Your task to perform on an android device: turn off data saver in the chrome app Image 0: 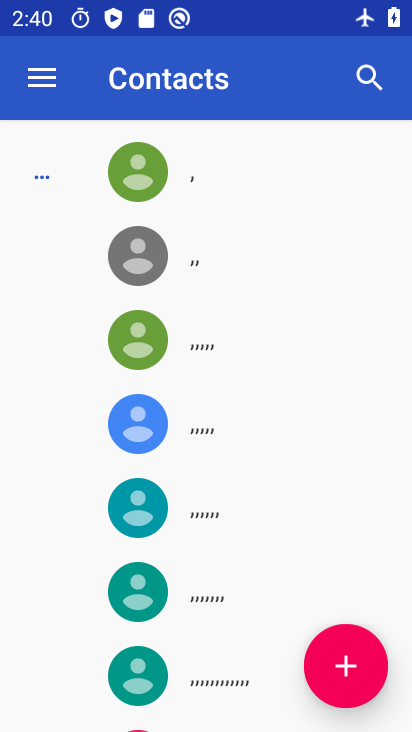
Step 0: press home button
Your task to perform on an android device: turn off data saver in the chrome app Image 1: 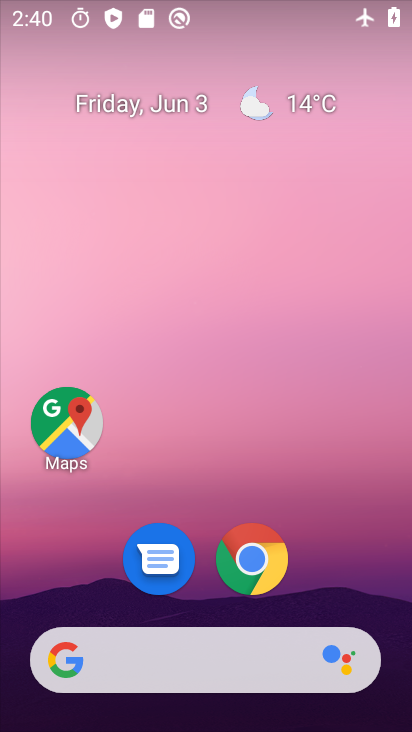
Step 1: drag from (183, 620) to (207, 86)
Your task to perform on an android device: turn off data saver in the chrome app Image 2: 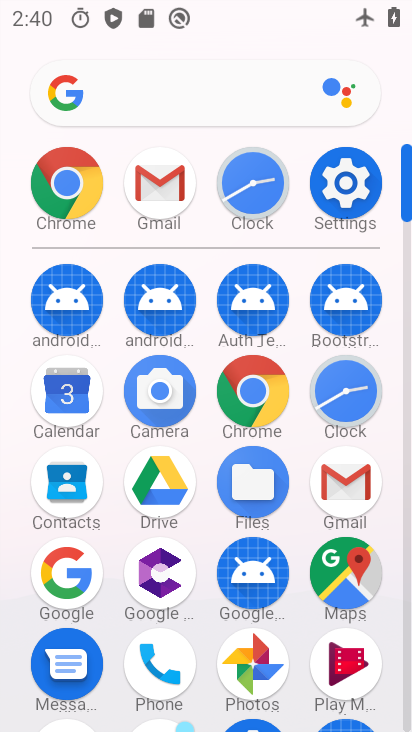
Step 2: click (262, 382)
Your task to perform on an android device: turn off data saver in the chrome app Image 3: 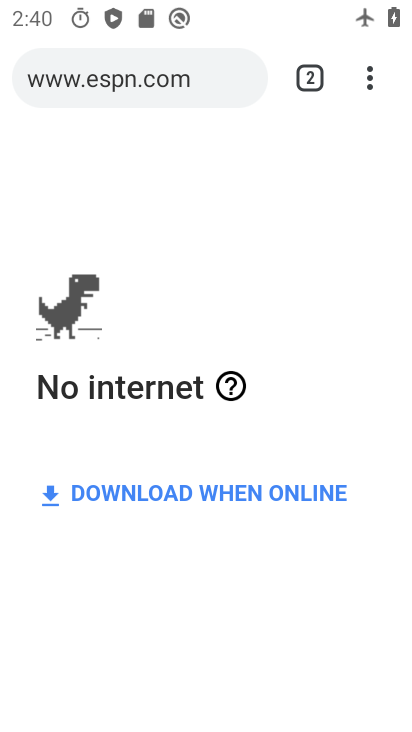
Step 3: click (366, 90)
Your task to perform on an android device: turn off data saver in the chrome app Image 4: 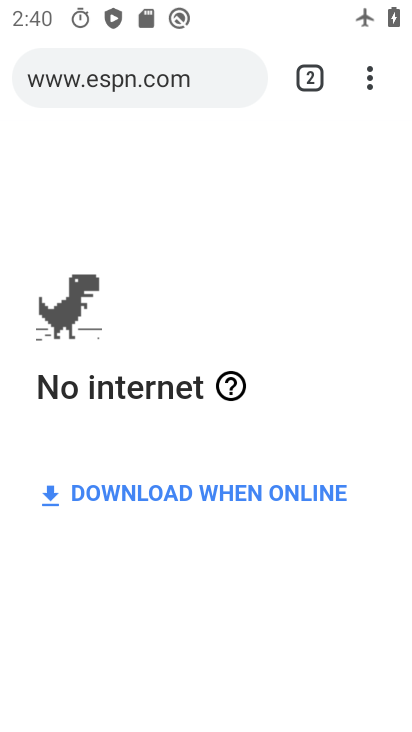
Step 4: drag from (376, 72) to (82, 630)
Your task to perform on an android device: turn off data saver in the chrome app Image 5: 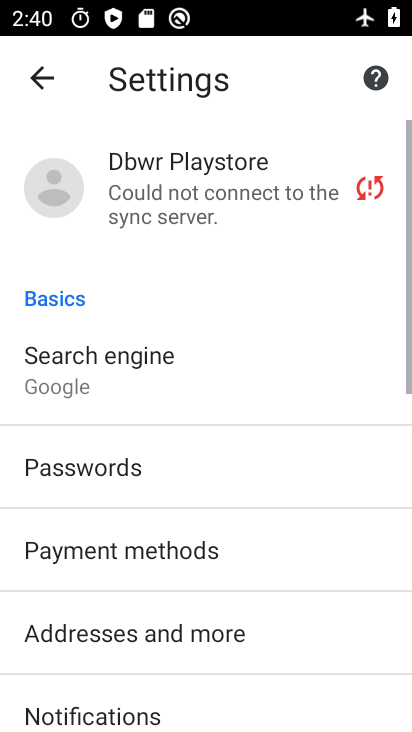
Step 5: drag from (83, 627) to (155, 106)
Your task to perform on an android device: turn off data saver in the chrome app Image 6: 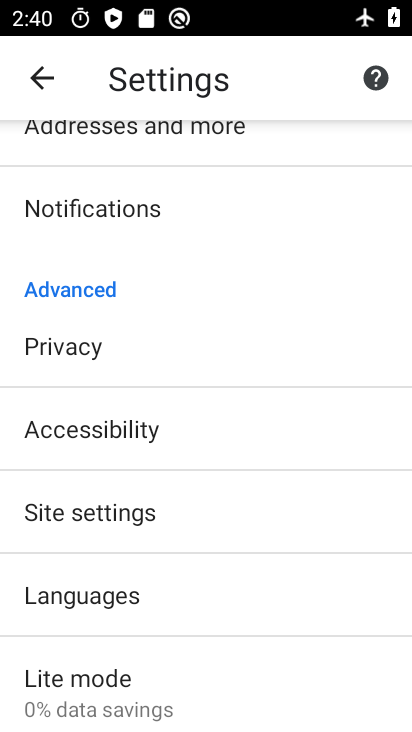
Step 6: click (102, 690)
Your task to perform on an android device: turn off data saver in the chrome app Image 7: 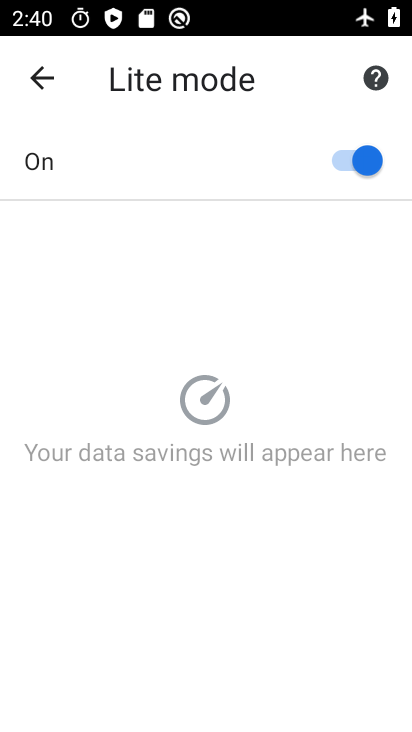
Step 7: click (319, 155)
Your task to perform on an android device: turn off data saver in the chrome app Image 8: 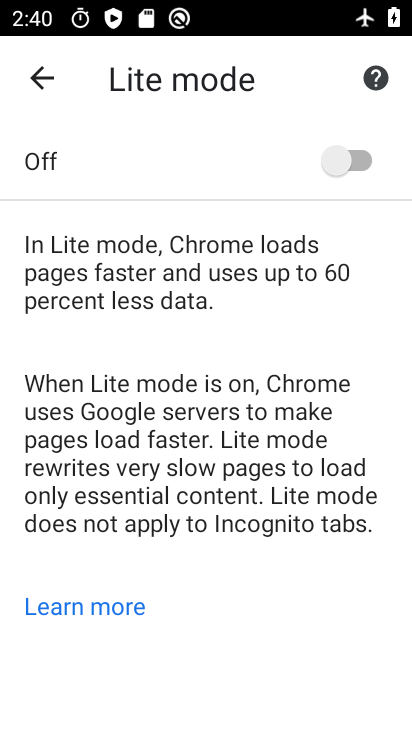
Step 8: task complete